Your task to perform on an android device: open a new tab in the chrome app Image 0: 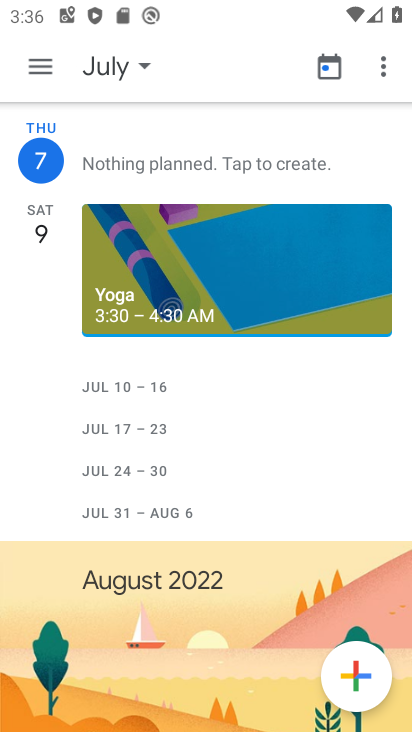
Step 0: press home button
Your task to perform on an android device: open a new tab in the chrome app Image 1: 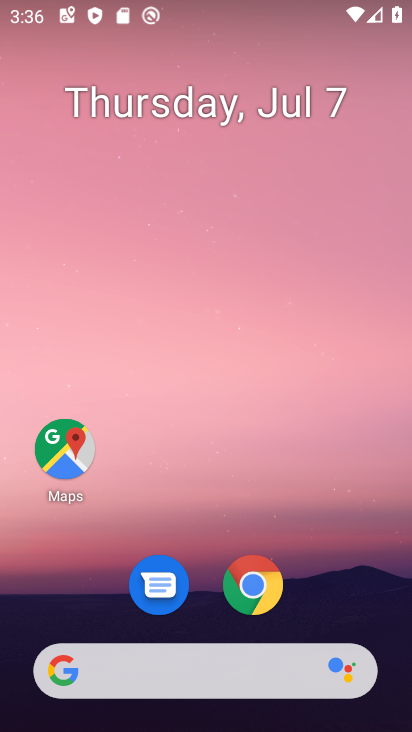
Step 1: click (261, 589)
Your task to perform on an android device: open a new tab in the chrome app Image 2: 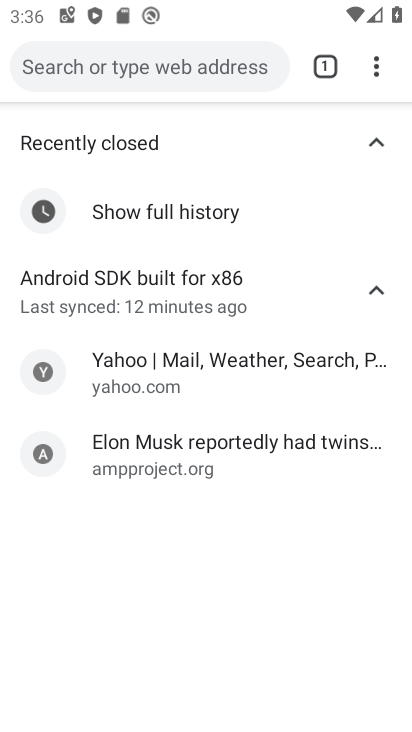
Step 2: click (373, 60)
Your task to perform on an android device: open a new tab in the chrome app Image 3: 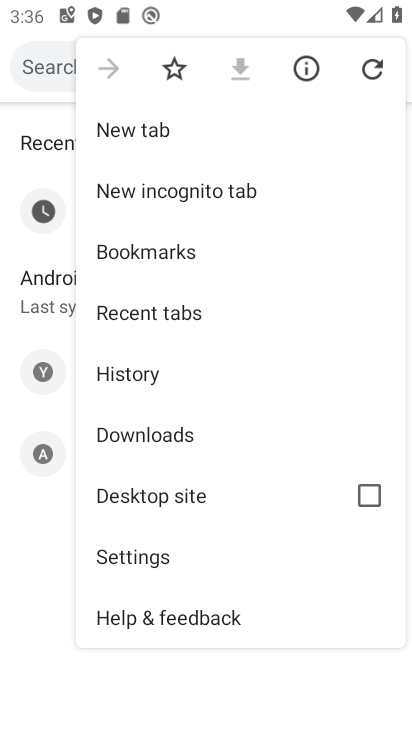
Step 3: click (271, 122)
Your task to perform on an android device: open a new tab in the chrome app Image 4: 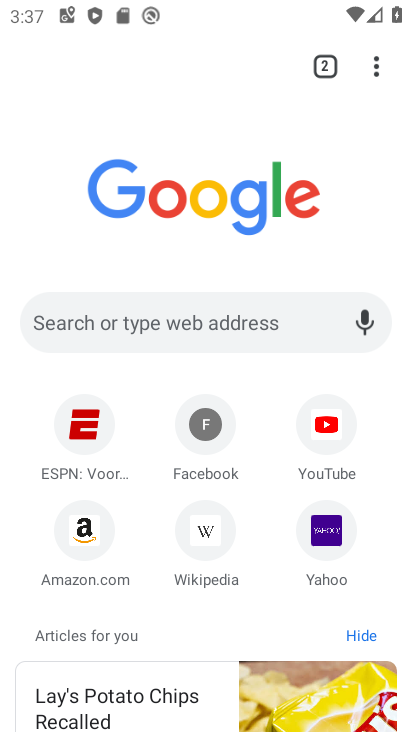
Step 4: task complete